Your task to perform on an android device: Open the stopwatch Image 0: 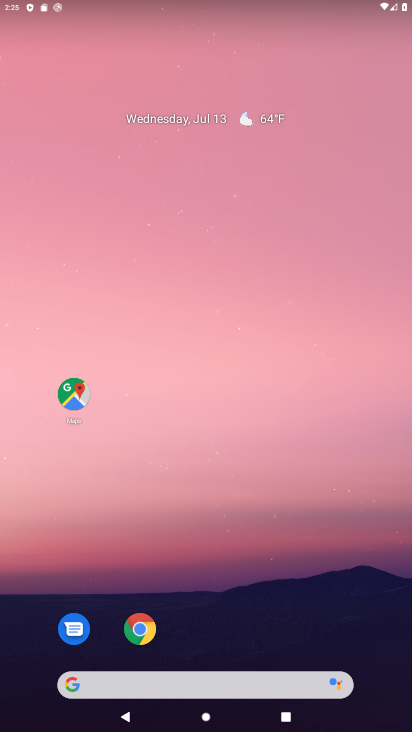
Step 0: click (194, 44)
Your task to perform on an android device: Open the stopwatch Image 1: 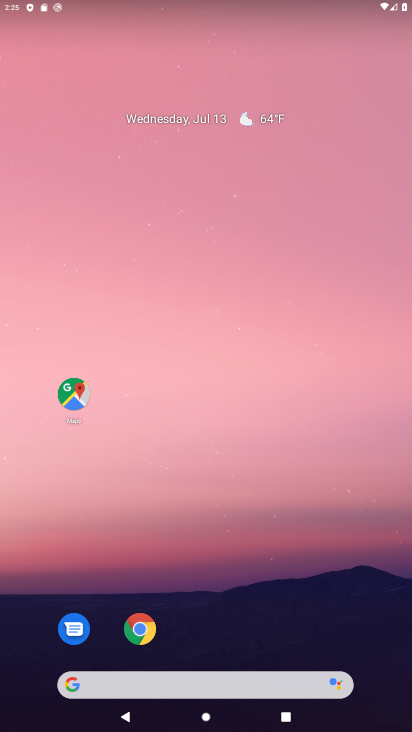
Step 1: drag from (219, 677) to (290, 12)
Your task to perform on an android device: Open the stopwatch Image 2: 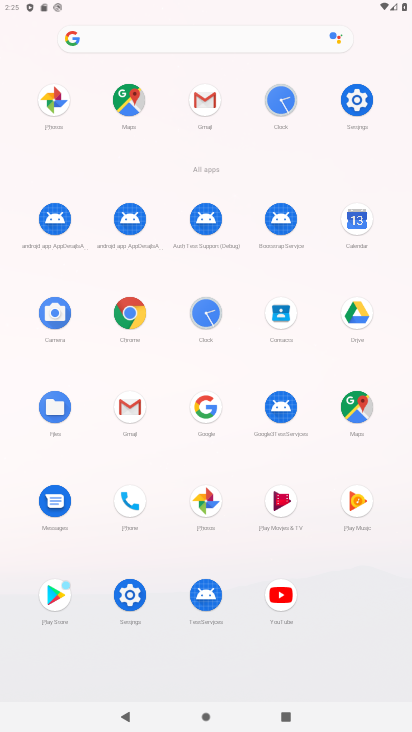
Step 2: click (203, 312)
Your task to perform on an android device: Open the stopwatch Image 3: 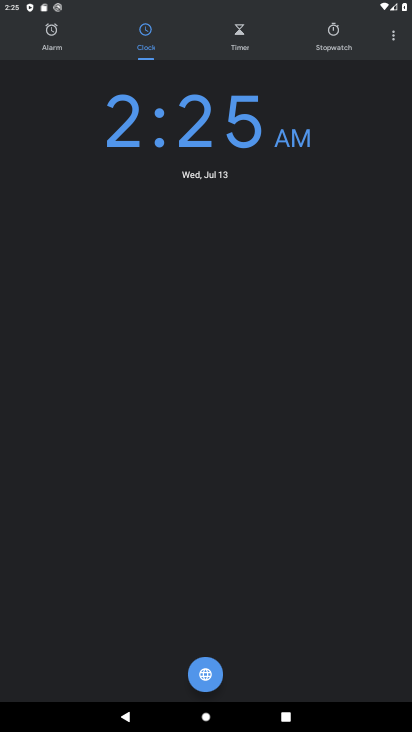
Step 3: click (331, 43)
Your task to perform on an android device: Open the stopwatch Image 4: 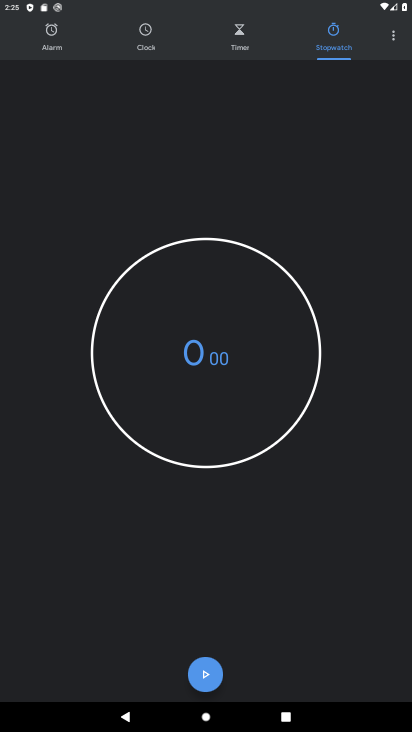
Step 4: click (216, 671)
Your task to perform on an android device: Open the stopwatch Image 5: 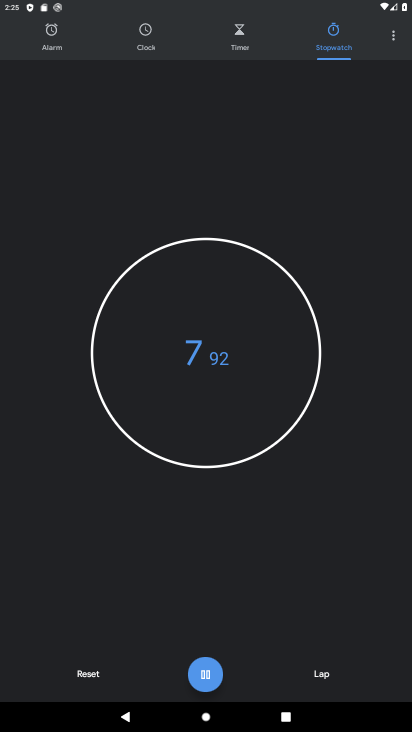
Step 5: task complete